Your task to perform on an android device: Empty the shopping cart on costco.com. Search for asus zenbook on costco.com, select the first entry, add it to the cart, then select checkout. Image 0: 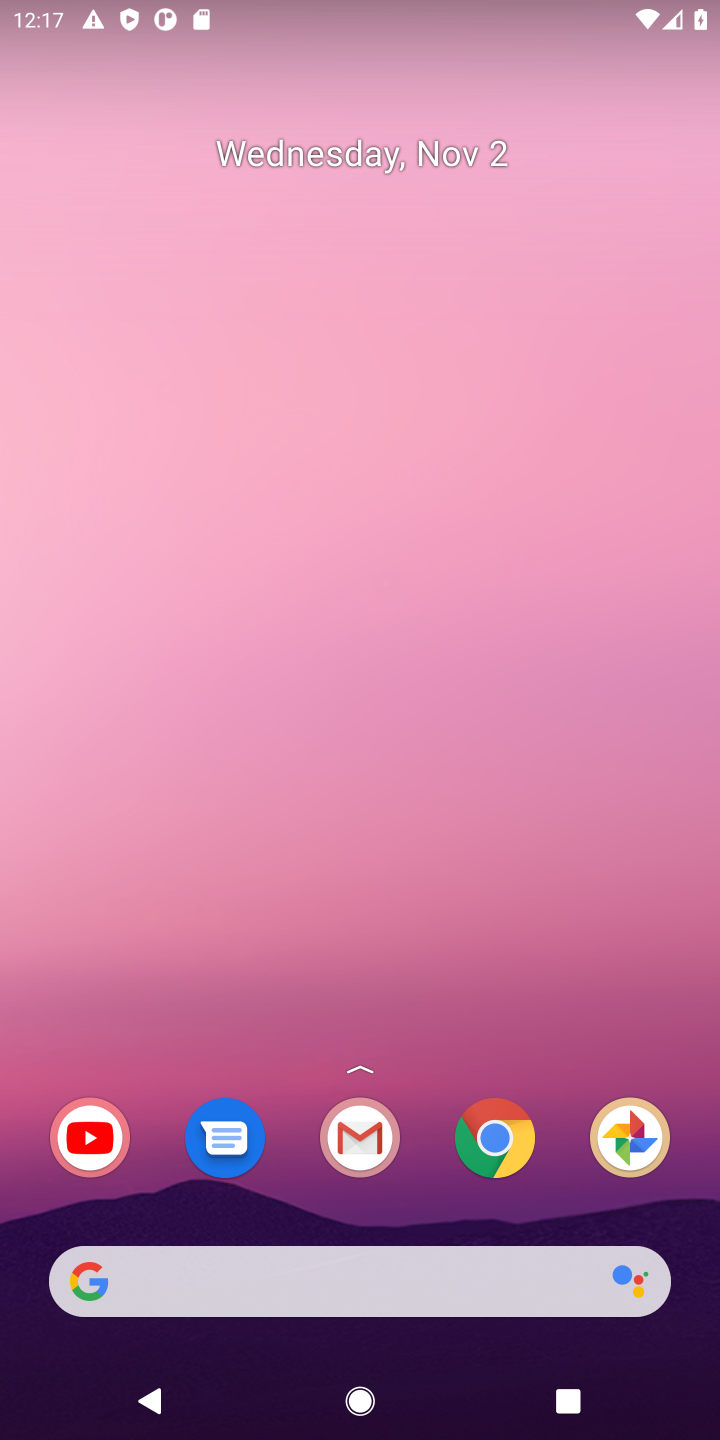
Step 0: press home button
Your task to perform on an android device: Empty the shopping cart on costco.com. Search for asus zenbook on costco.com, select the first entry, add it to the cart, then select checkout. Image 1: 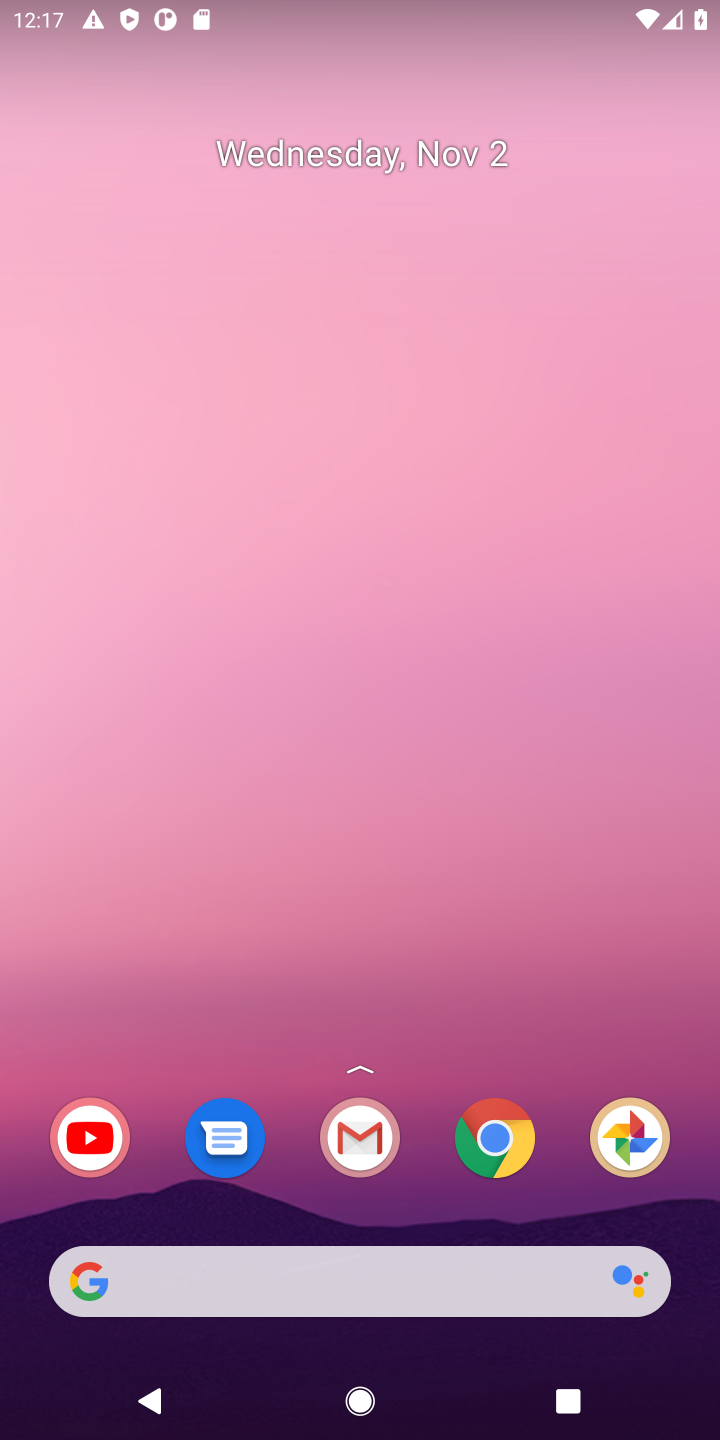
Step 1: click (151, 1275)
Your task to perform on an android device: Empty the shopping cart on costco.com. Search for asus zenbook on costco.com, select the first entry, add it to the cart, then select checkout. Image 2: 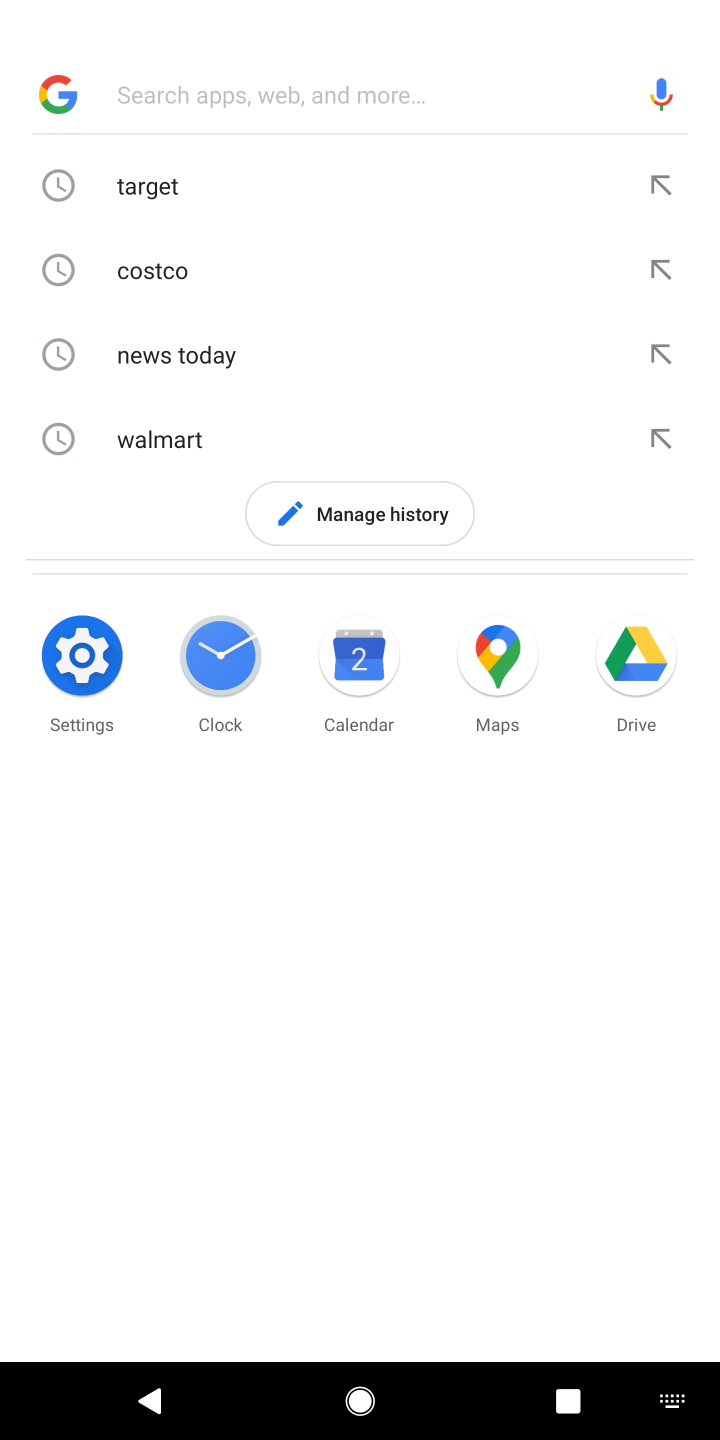
Step 2: type "costco.com"
Your task to perform on an android device: Empty the shopping cart on costco.com. Search for asus zenbook on costco.com, select the first entry, add it to the cart, then select checkout. Image 3: 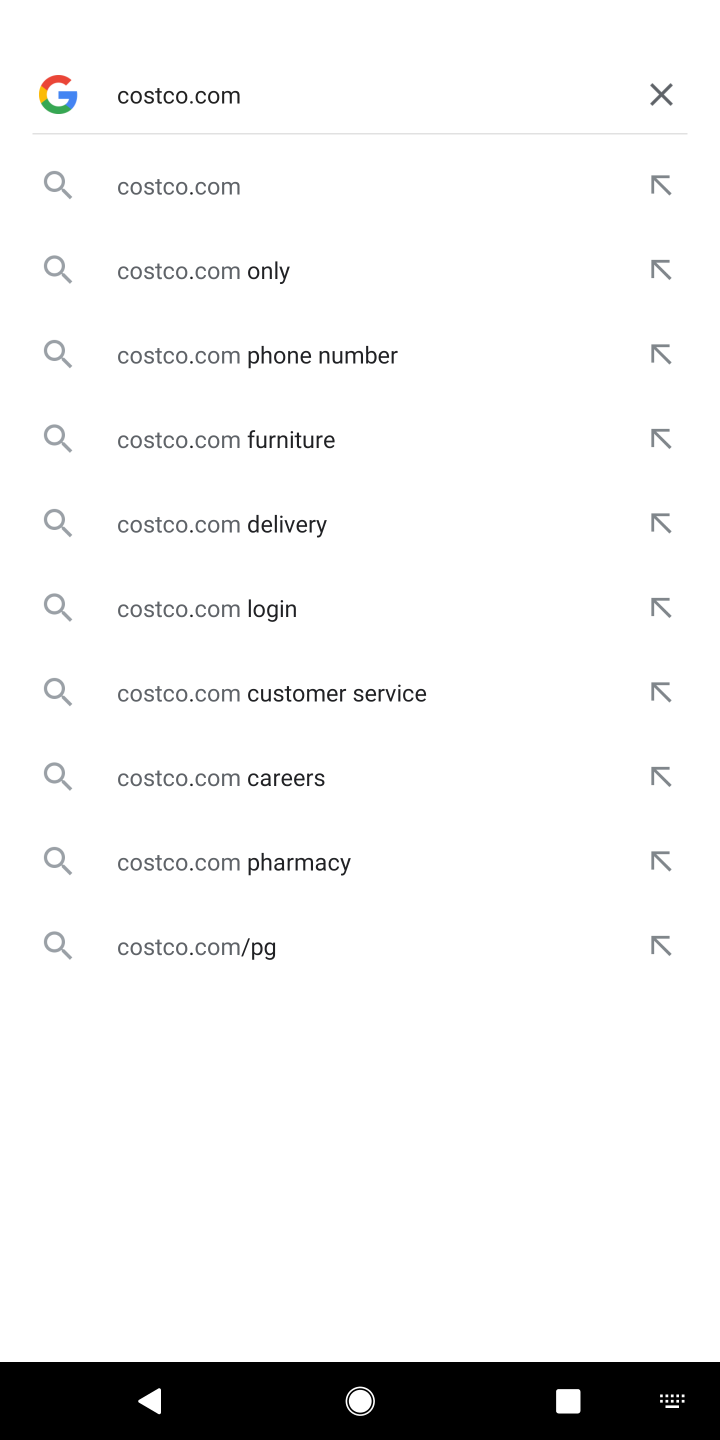
Step 3: press enter
Your task to perform on an android device: Empty the shopping cart on costco.com. Search for asus zenbook on costco.com, select the first entry, add it to the cart, then select checkout. Image 4: 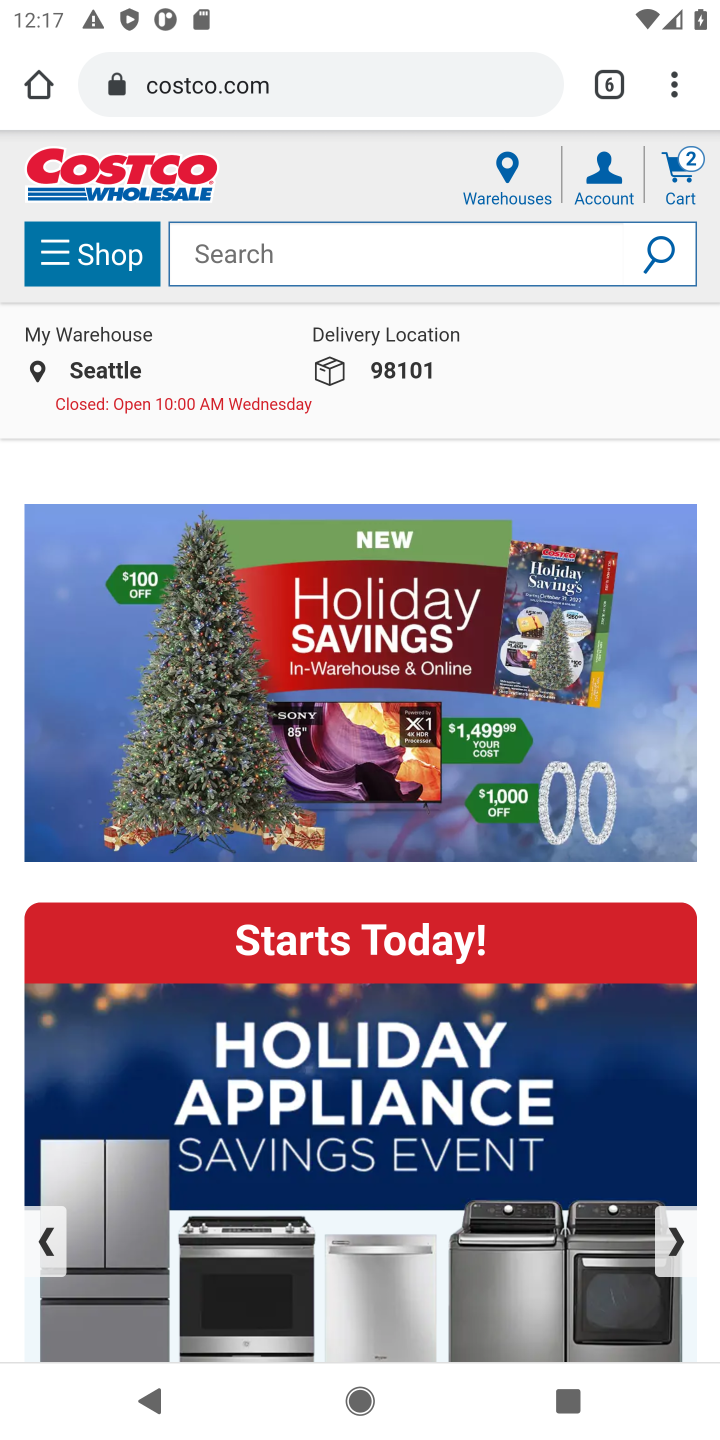
Step 4: click (689, 169)
Your task to perform on an android device: Empty the shopping cart on costco.com. Search for asus zenbook on costco.com, select the first entry, add it to the cart, then select checkout. Image 5: 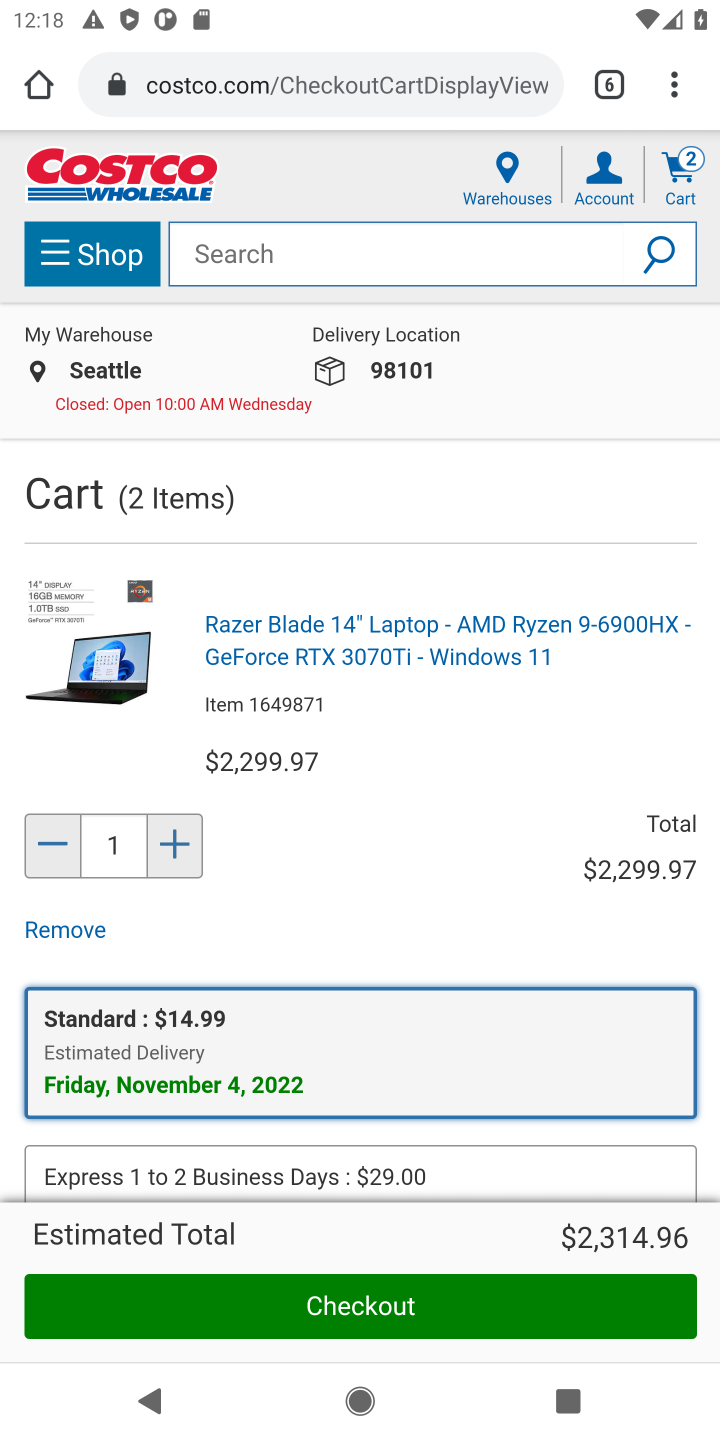
Step 5: click (49, 930)
Your task to perform on an android device: Empty the shopping cart on costco.com. Search for asus zenbook on costco.com, select the first entry, add it to the cart, then select checkout. Image 6: 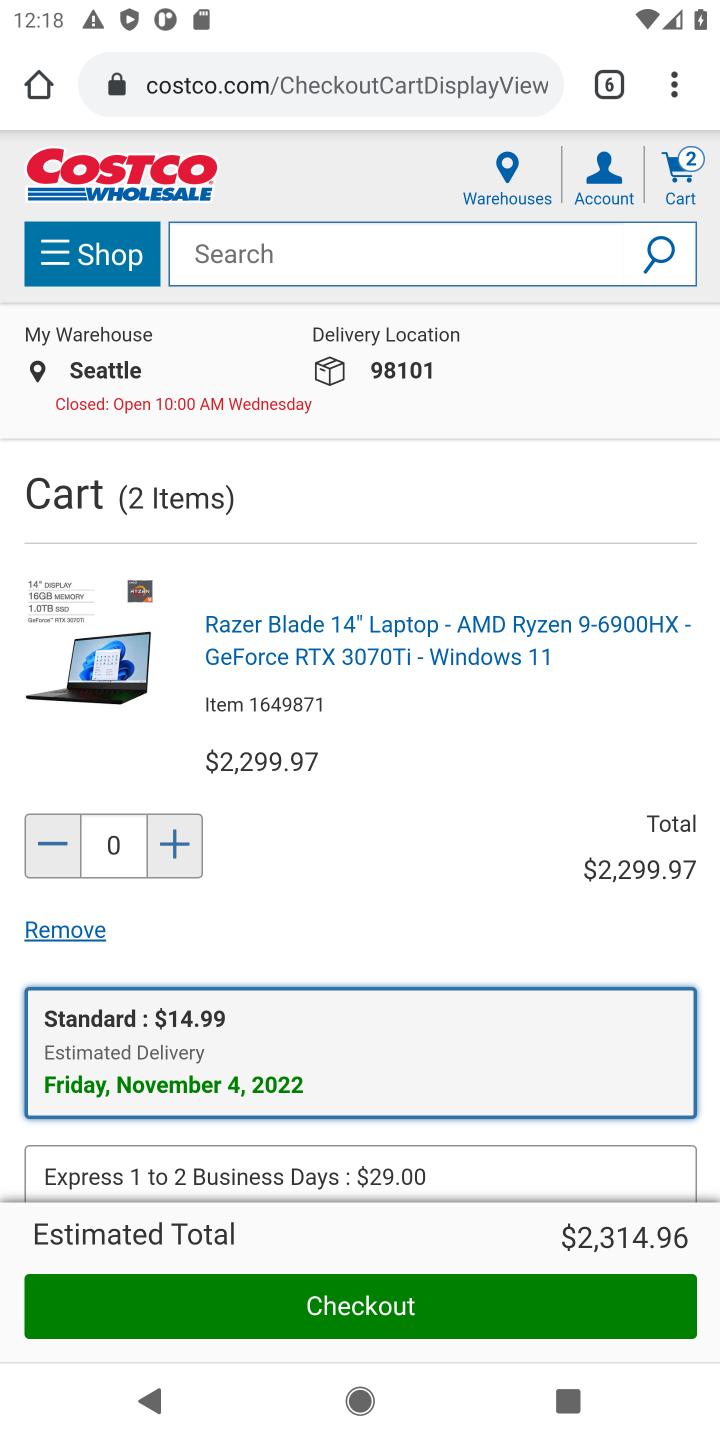
Step 6: task complete